Your task to perform on an android device: turn off notifications settings in the gmail app Image 0: 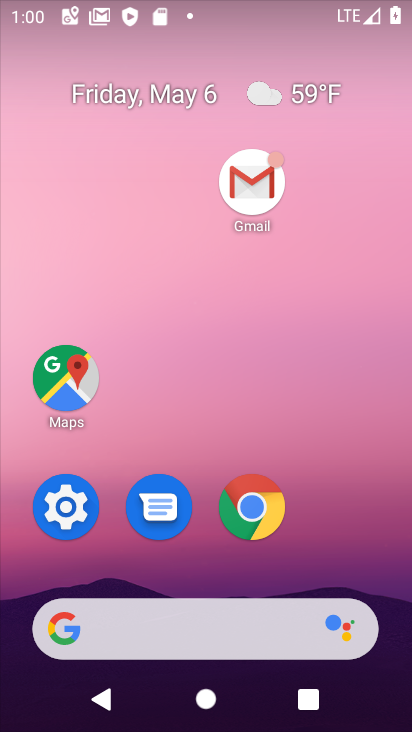
Step 0: click (259, 189)
Your task to perform on an android device: turn off notifications settings in the gmail app Image 1: 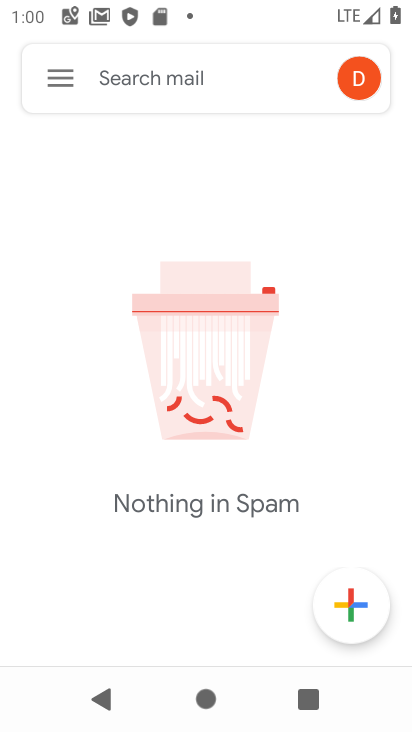
Step 1: click (53, 76)
Your task to perform on an android device: turn off notifications settings in the gmail app Image 2: 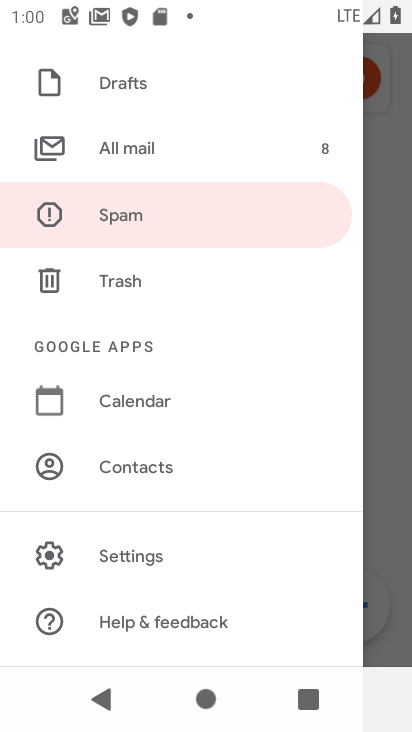
Step 2: click (114, 551)
Your task to perform on an android device: turn off notifications settings in the gmail app Image 3: 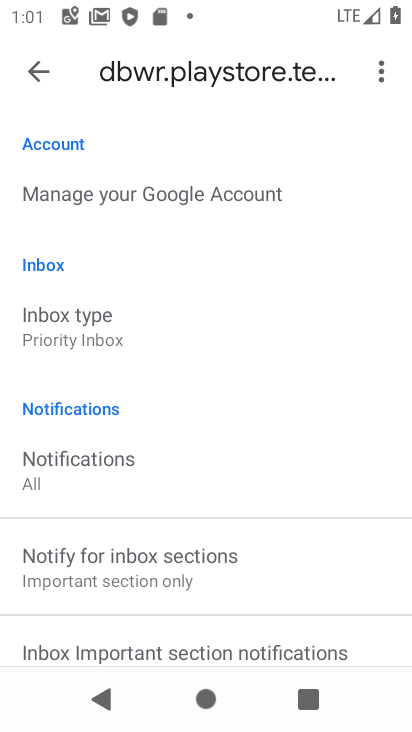
Step 3: click (36, 74)
Your task to perform on an android device: turn off notifications settings in the gmail app Image 4: 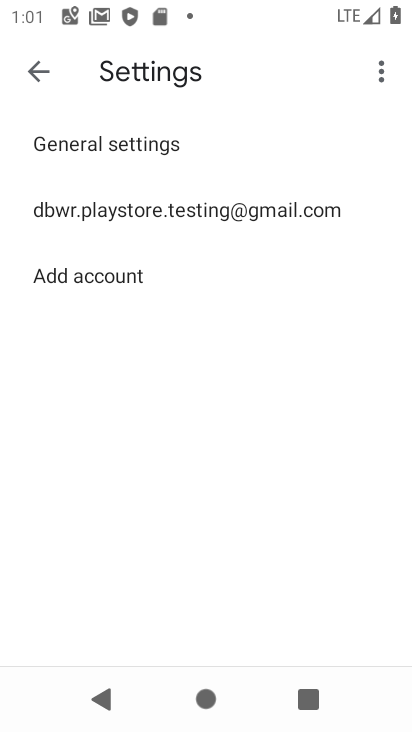
Step 4: click (139, 151)
Your task to perform on an android device: turn off notifications settings in the gmail app Image 5: 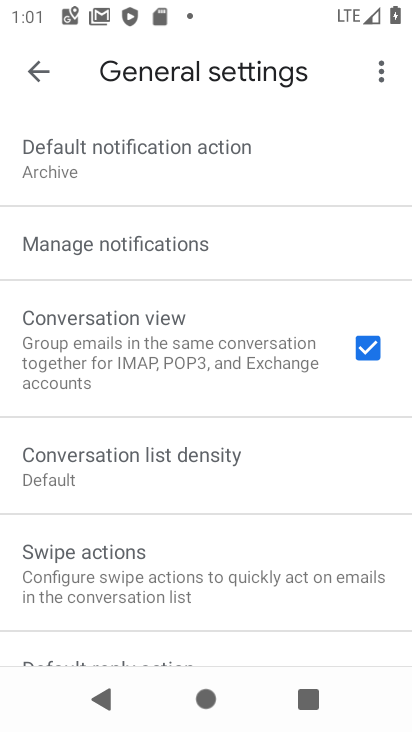
Step 5: click (126, 234)
Your task to perform on an android device: turn off notifications settings in the gmail app Image 6: 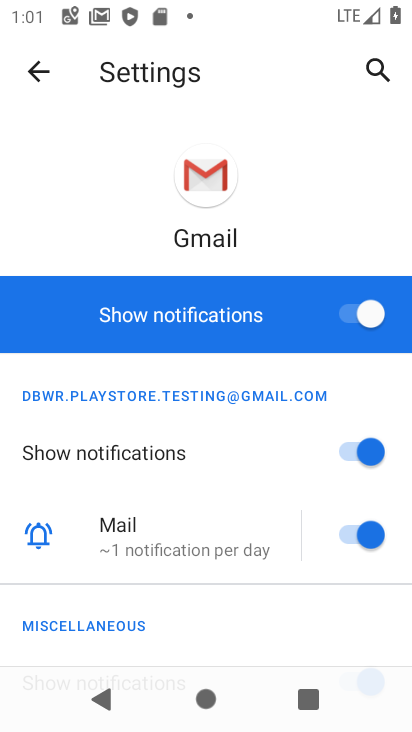
Step 6: click (377, 318)
Your task to perform on an android device: turn off notifications settings in the gmail app Image 7: 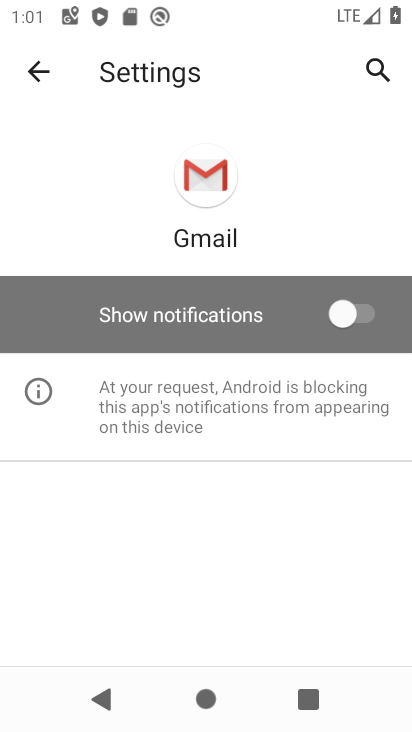
Step 7: task complete